Your task to perform on an android device: snooze an email in the gmail app Image 0: 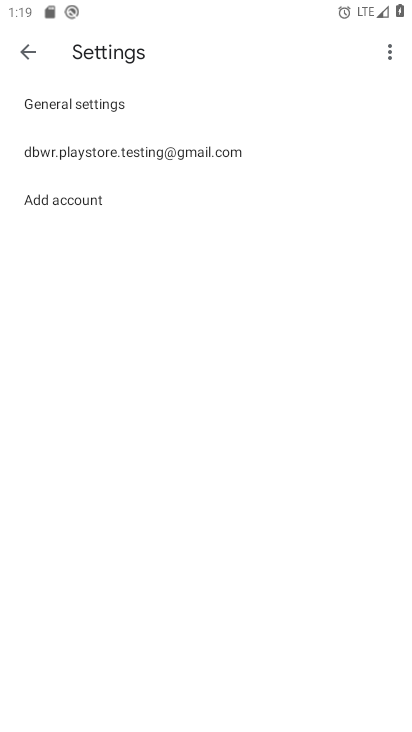
Step 0: press home button
Your task to perform on an android device: snooze an email in the gmail app Image 1: 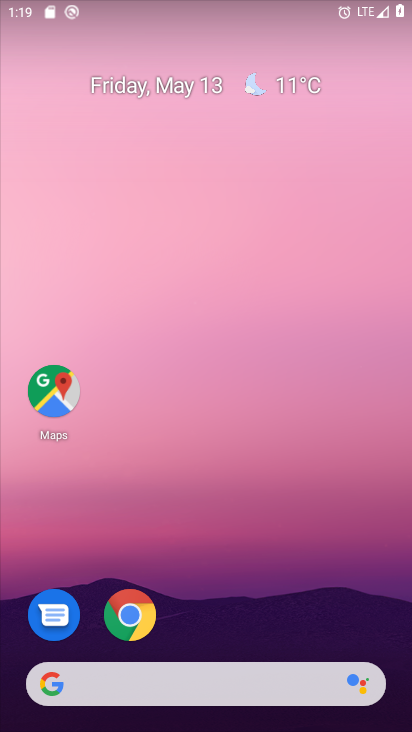
Step 1: drag from (221, 559) to (243, 37)
Your task to perform on an android device: snooze an email in the gmail app Image 2: 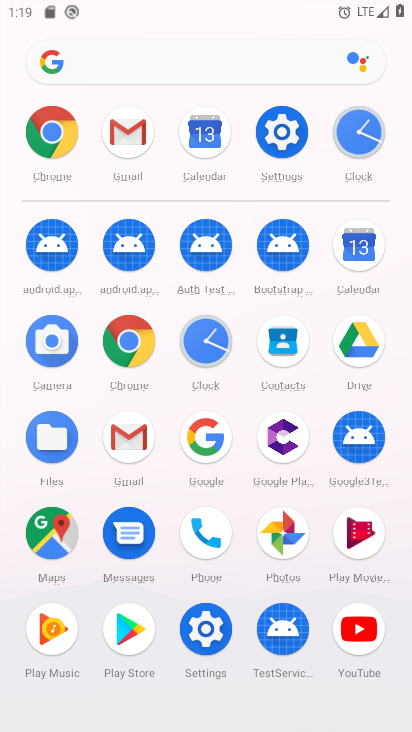
Step 2: click (127, 144)
Your task to perform on an android device: snooze an email in the gmail app Image 3: 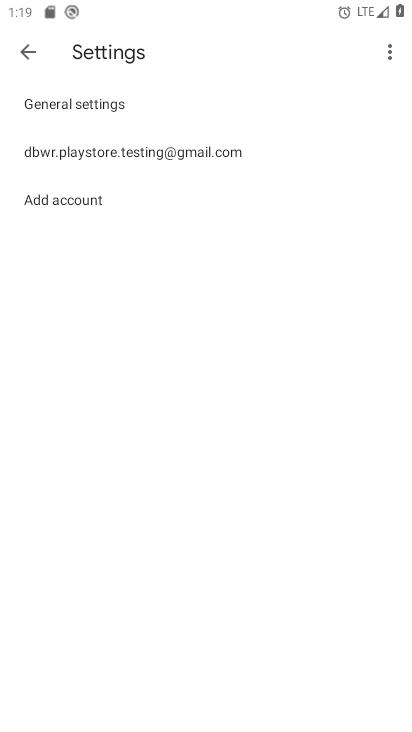
Step 3: click (21, 47)
Your task to perform on an android device: snooze an email in the gmail app Image 4: 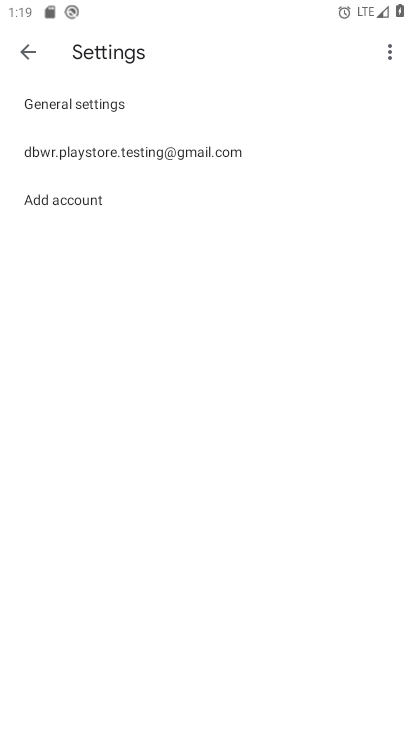
Step 4: click (29, 54)
Your task to perform on an android device: snooze an email in the gmail app Image 5: 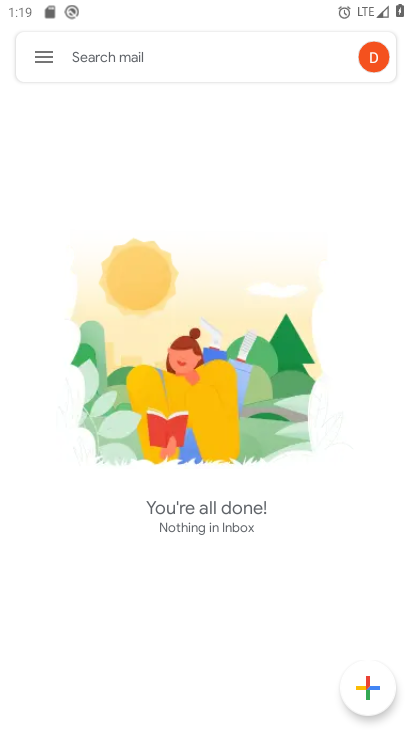
Step 5: click (35, 52)
Your task to perform on an android device: snooze an email in the gmail app Image 6: 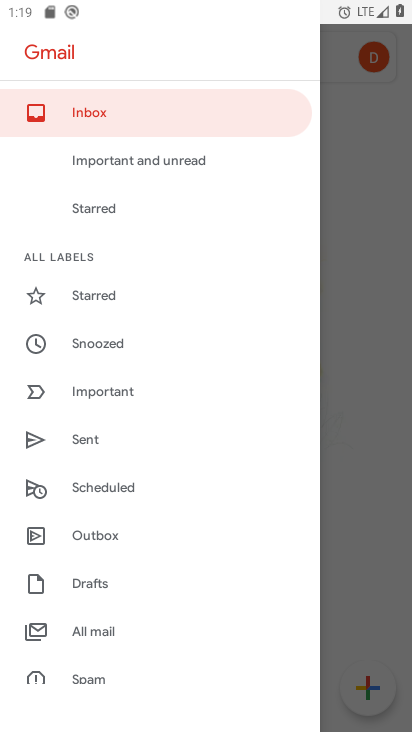
Step 6: click (118, 638)
Your task to perform on an android device: snooze an email in the gmail app Image 7: 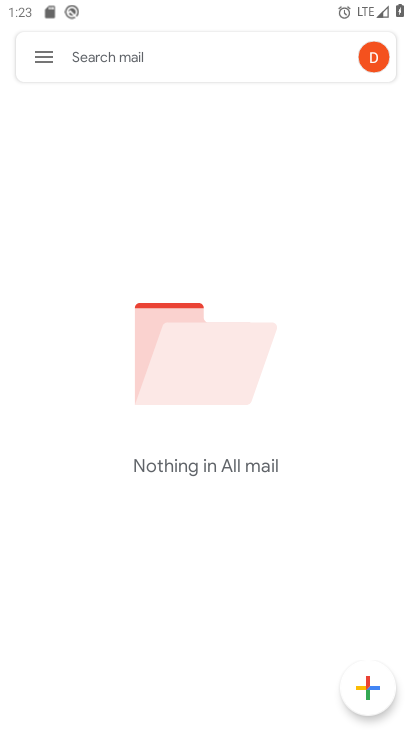
Step 7: task complete